Your task to perform on an android device: Go to Google Image 0: 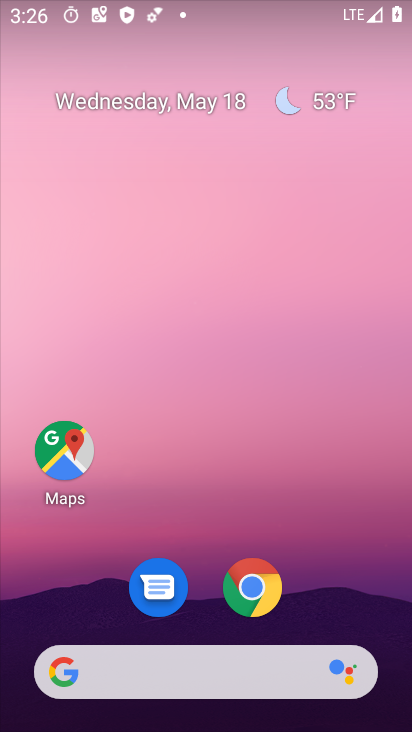
Step 0: drag from (216, 661) to (269, 311)
Your task to perform on an android device: Go to Google Image 1: 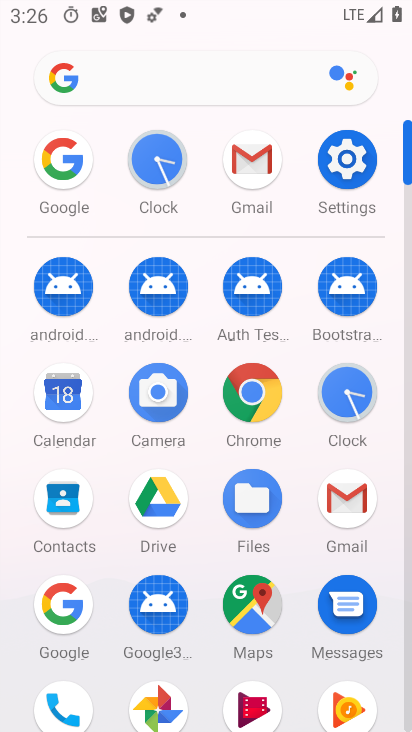
Step 1: click (259, 625)
Your task to perform on an android device: Go to Google Image 2: 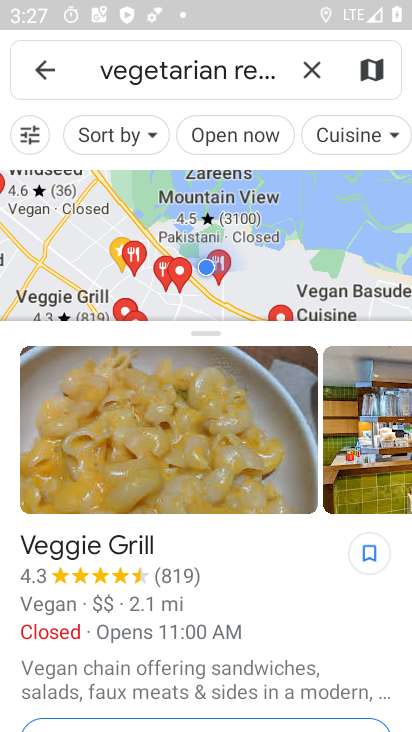
Step 2: task complete